Your task to perform on an android device: What's the weather going to be this weekend? Image 0: 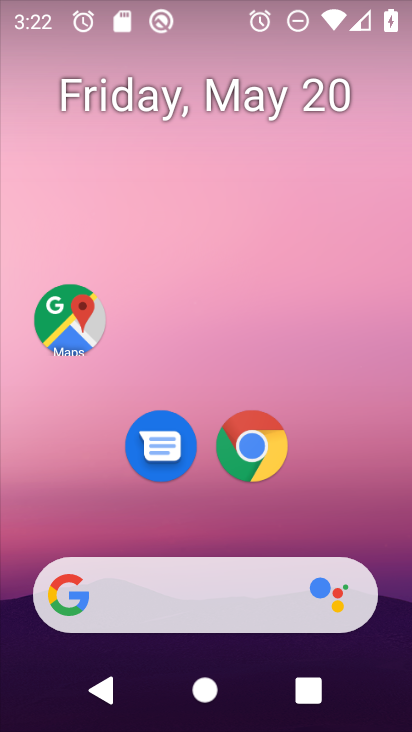
Step 0: click (131, 592)
Your task to perform on an android device: What's the weather going to be this weekend? Image 1: 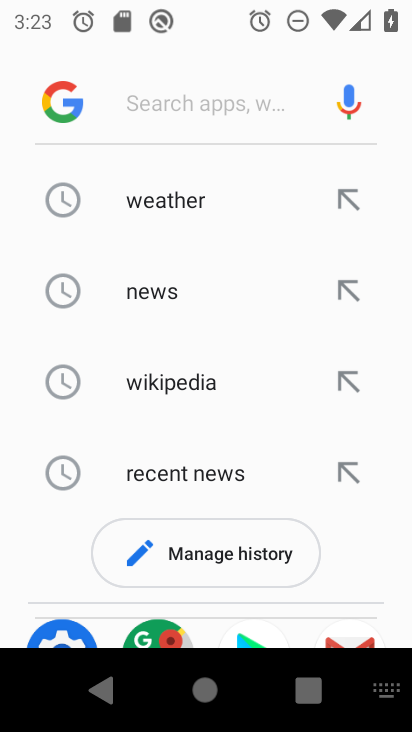
Step 1: click (158, 209)
Your task to perform on an android device: What's the weather going to be this weekend? Image 2: 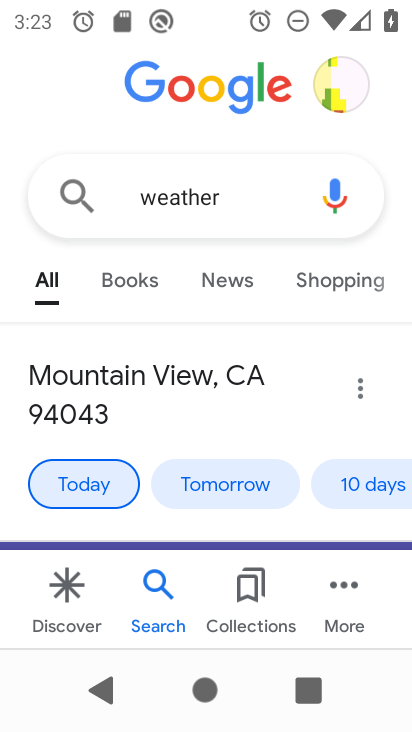
Step 2: click (374, 491)
Your task to perform on an android device: What's the weather going to be this weekend? Image 3: 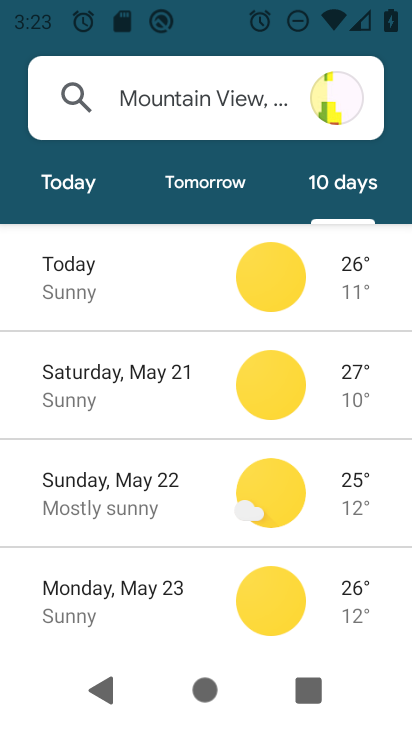
Step 3: task complete